Your task to perform on an android device: change timer sound Image 0: 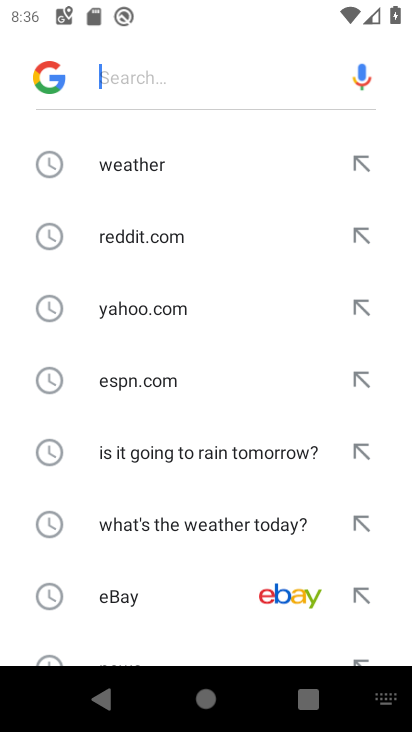
Step 0: press back button
Your task to perform on an android device: change timer sound Image 1: 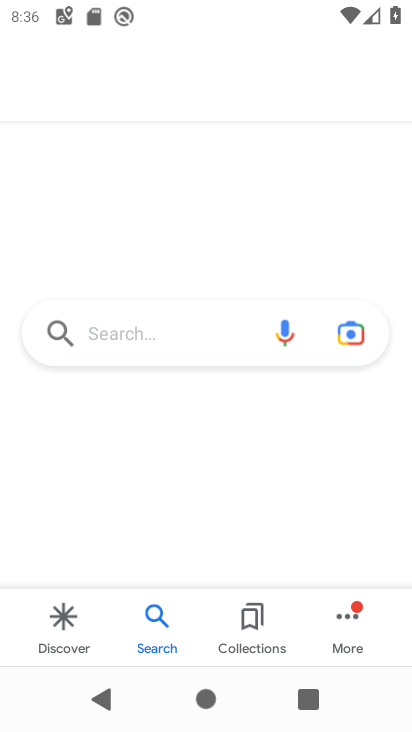
Step 1: press back button
Your task to perform on an android device: change timer sound Image 2: 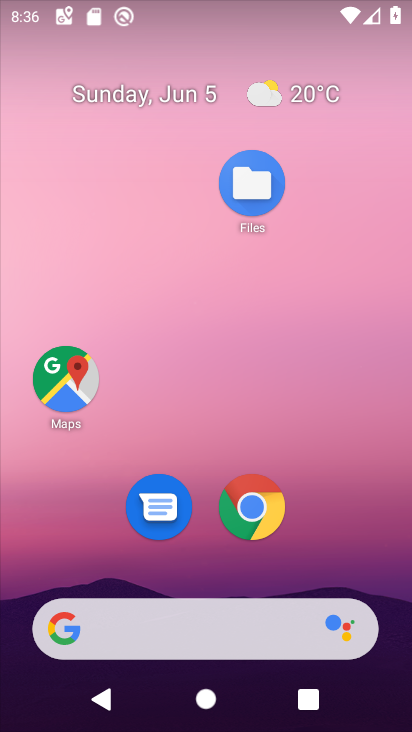
Step 2: drag from (214, 587) to (181, 23)
Your task to perform on an android device: change timer sound Image 3: 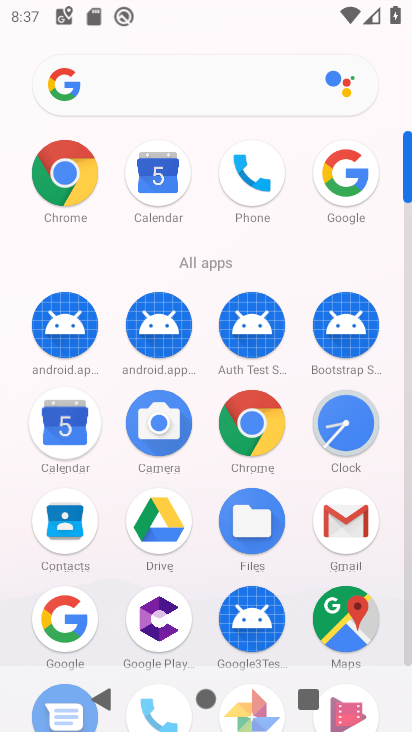
Step 3: click (339, 425)
Your task to perform on an android device: change timer sound Image 4: 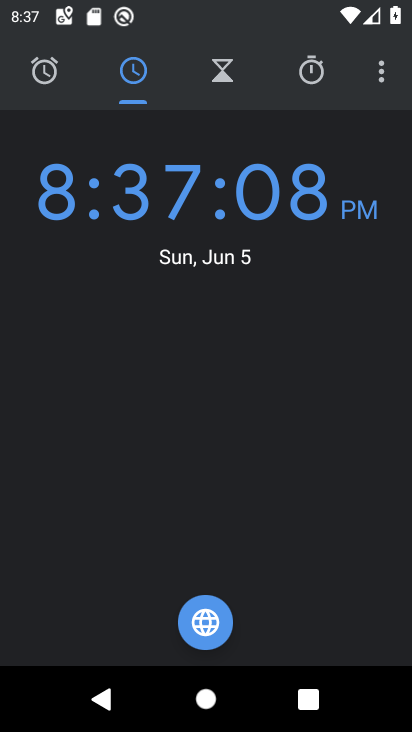
Step 4: click (385, 69)
Your task to perform on an android device: change timer sound Image 5: 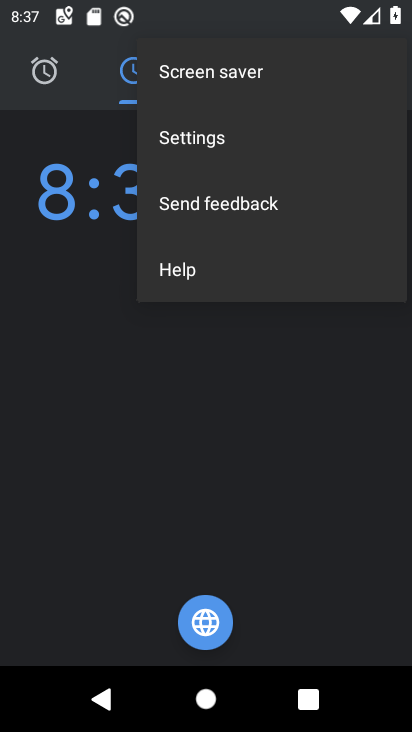
Step 5: click (211, 130)
Your task to perform on an android device: change timer sound Image 6: 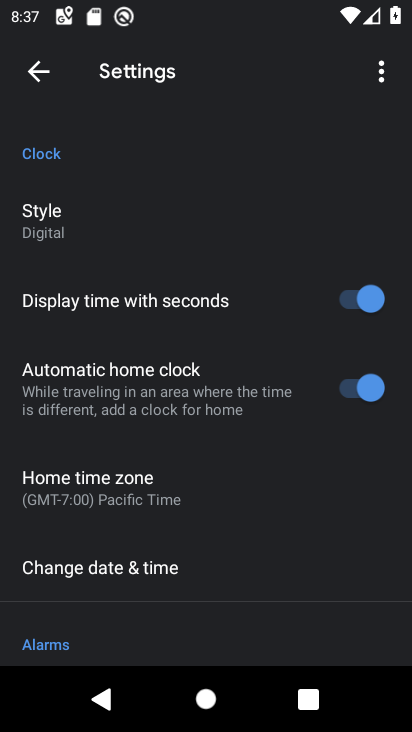
Step 6: drag from (73, 574) to (39, 19)
Your task to perform on an android device: change timer sound Image 7: 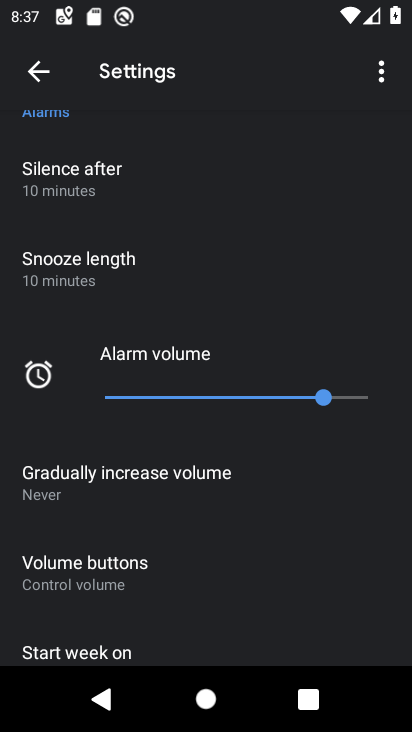
Step 7: drag from (108, 364) to (71, 112)
Your task to perform on an android device: change timer sound Image 8: 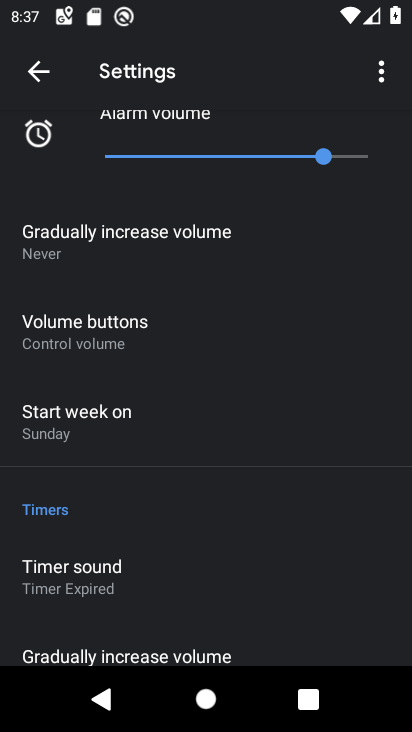
Step 8: click (97, 564)
Your task to perform on an android device: change timer sound Image 9: 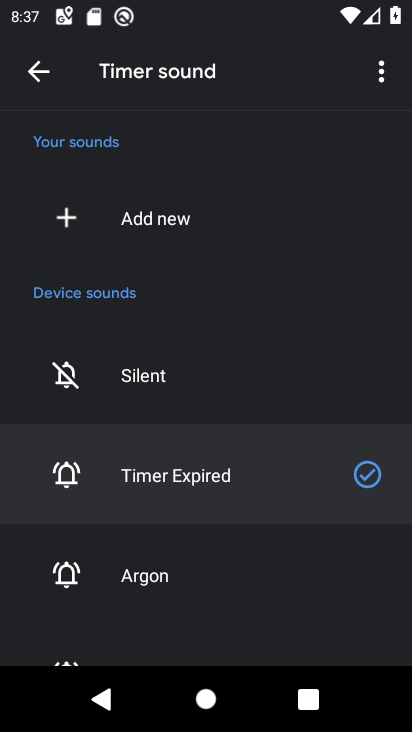
Step 9: click (190, 544)
Your task to perform on an android device: change timer sound Image 10: 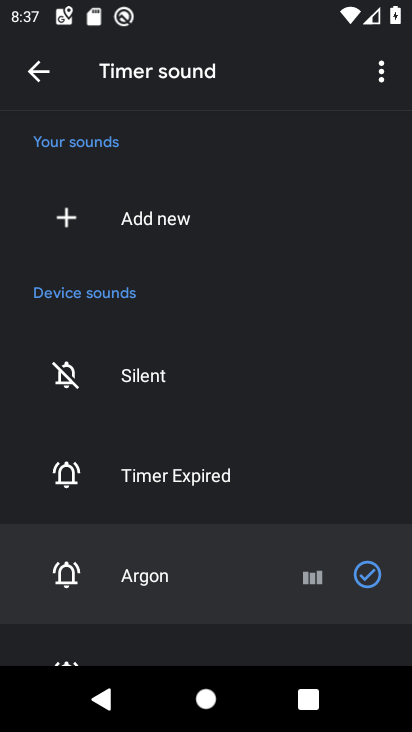
Step 10: task complete